Your task to perform on an android device: set an alarm Image 0: 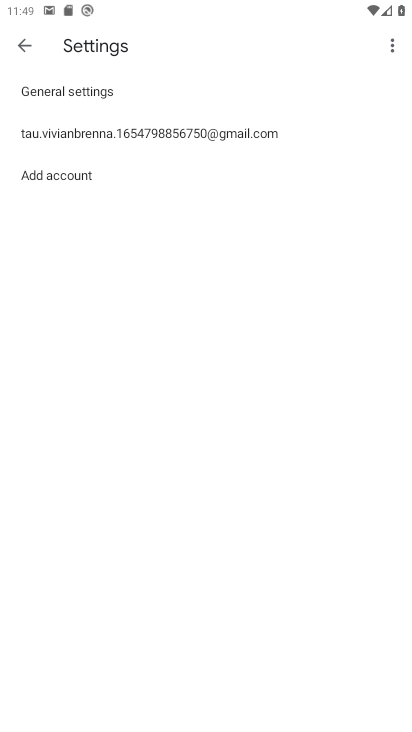
Step 0: press home button
Your task to perform on an android device: set an alarm Image 1: 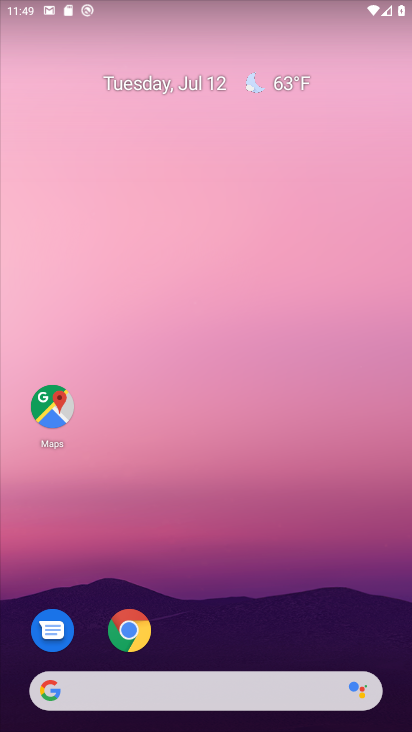
Step 1: drag from (215, 696) to (192, 148)
Your task to perform on an android device: set an alarm Image 2: 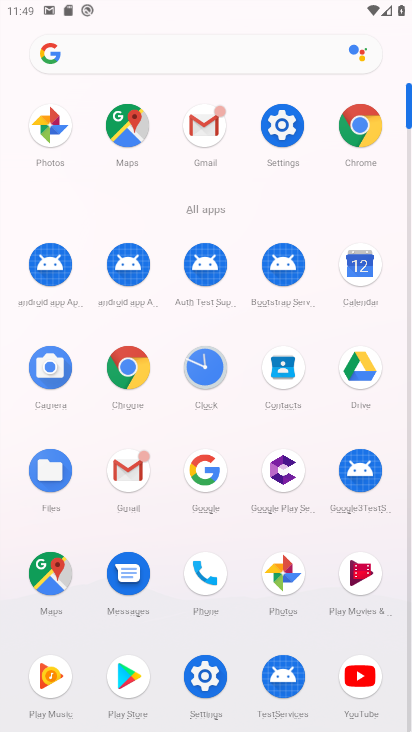
Step 2: click (215, 370)
Your task to perform on an android device: set an alarm Image 3: 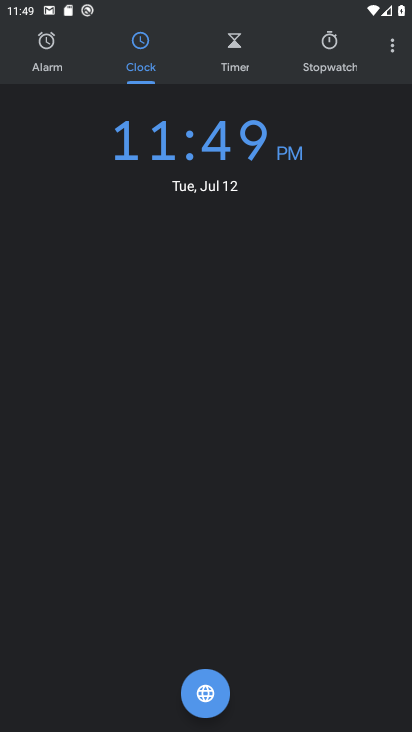
Step 3: click (44, 54)
Your task to perform on an android device: set an alarm Image 4: 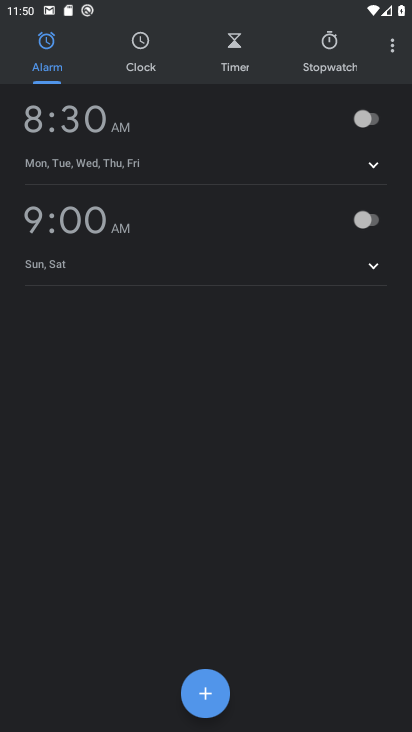
Step 4: click (196, 707)
Your task to perform on an android device: set an alarm Image 5: 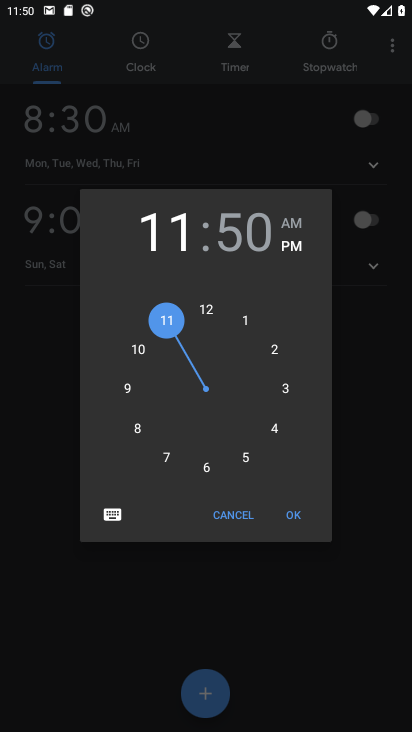
Step 5: click (169, 469)
Your task to perform on an android device: set an alarm Image 6: 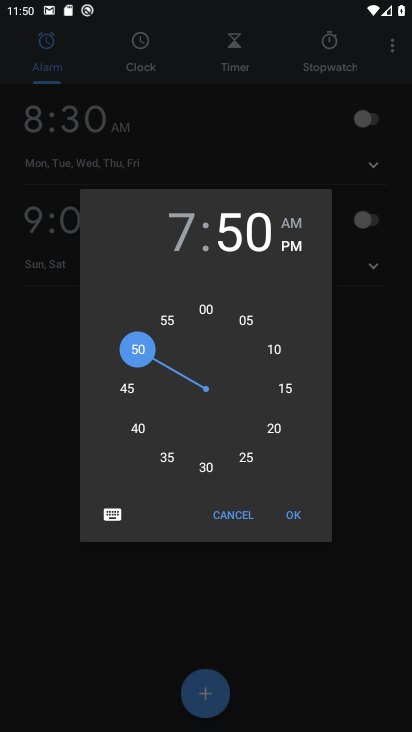
Step 6: click (296, 517)
Your task to perform on an android device: set an alarm Image 7: 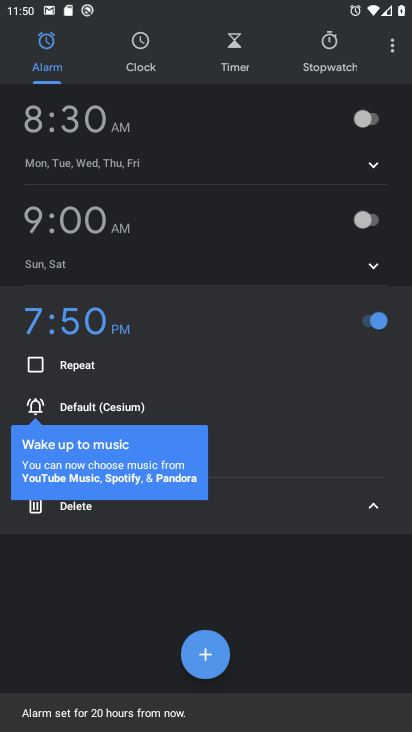
Step 7: task complete